Your task to perform on an android device: What is the recent news? Image 0: 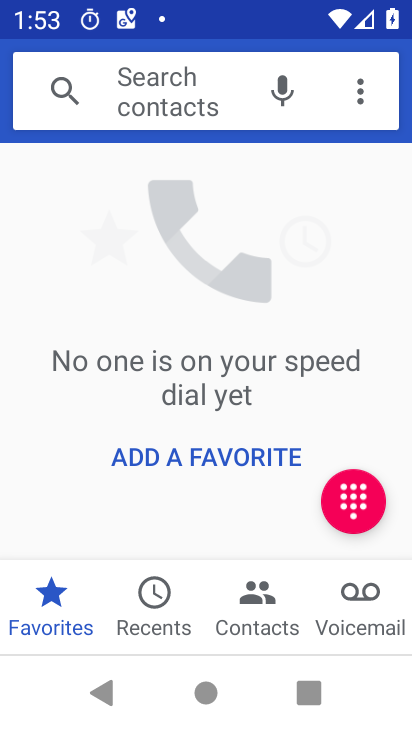
Step 0: press home button
Your task to perform on an android device: What is the recent news? Image 1: 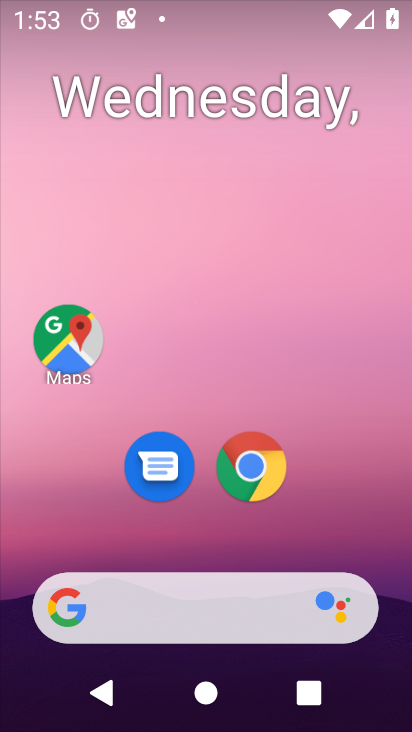
Step 1: click (102, 605)
Your task to perform on an android device: What is the recent news? Image 2: 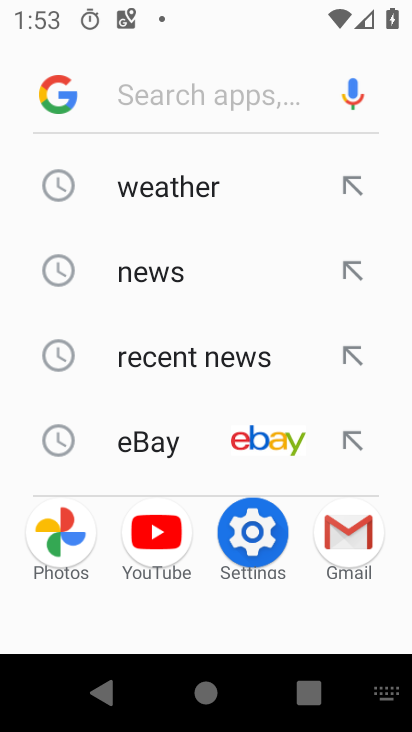
Step 2: click (138, 343)
Your task to perform on an android device: What is the recent news? Image 3: 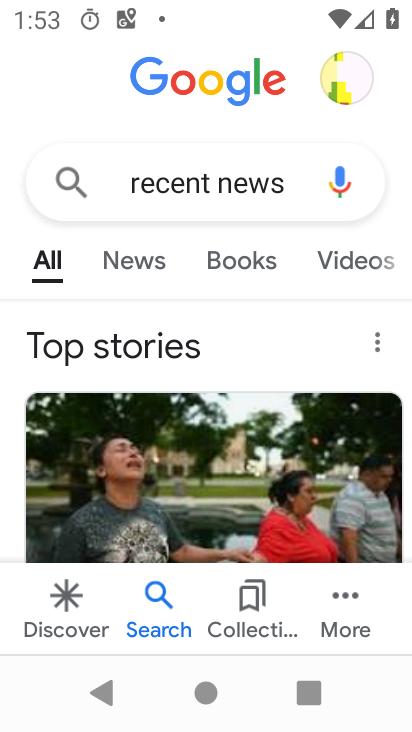
Step 3: task complete